Your task to perform on an android device: Open wifi settings Image 0: 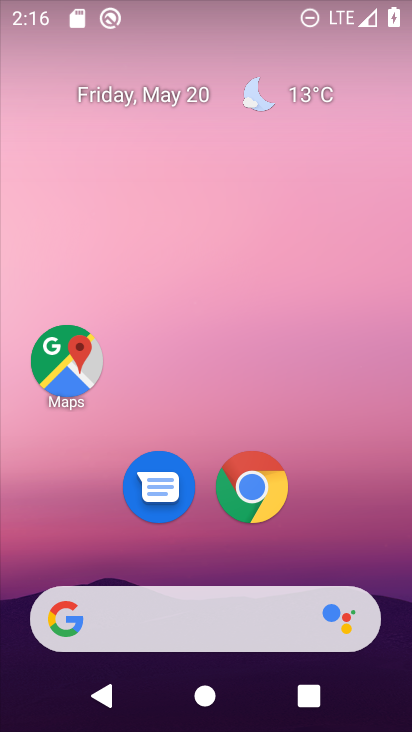
Step 0: drag from (198, 552) to (207, 60)
Your task to perform on an android device: Open wifi settings Image 1: 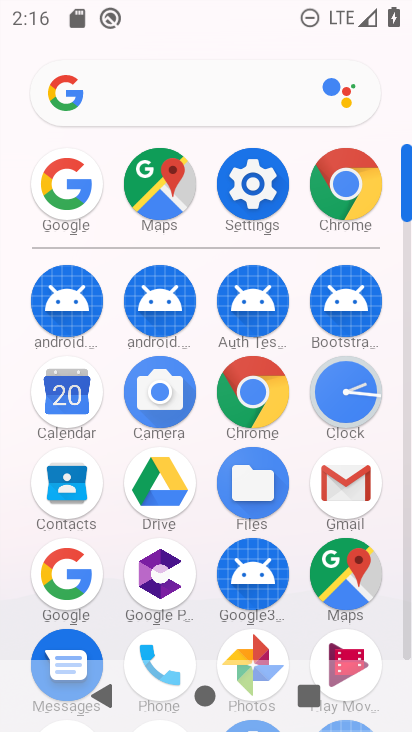
Step 1: click (253, 175)
Your task to perform on an android device: Open wifi settings Image 2: 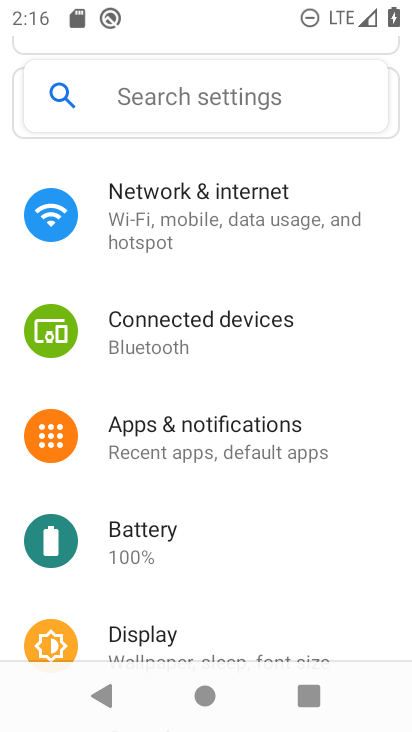
Step 2: click (186, 213)
Your task to perform on an android device: Open wifi settings Image 3: 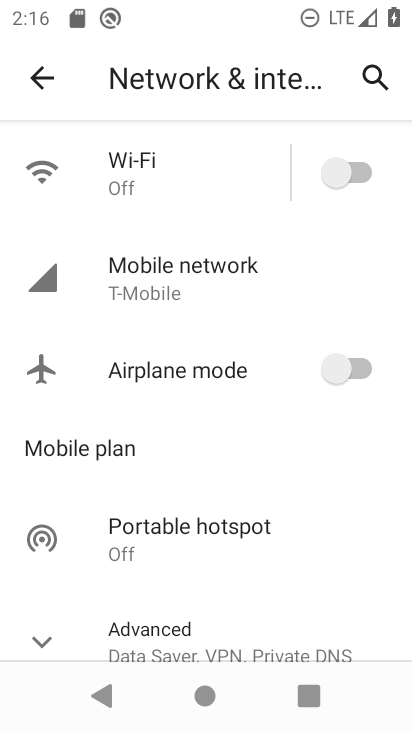
Step 3: click (193, 172)
Your task to perform on an android device: Open wifi settings Image 4: 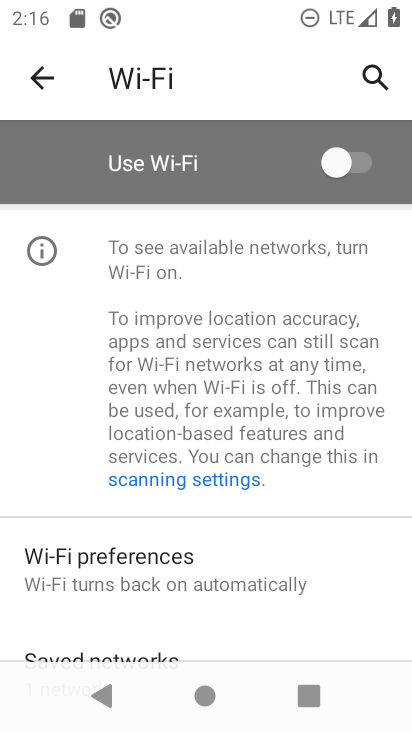
Step 4: click (340, 151)
Your task to perform on an android device: Open wifi settings Image 5: 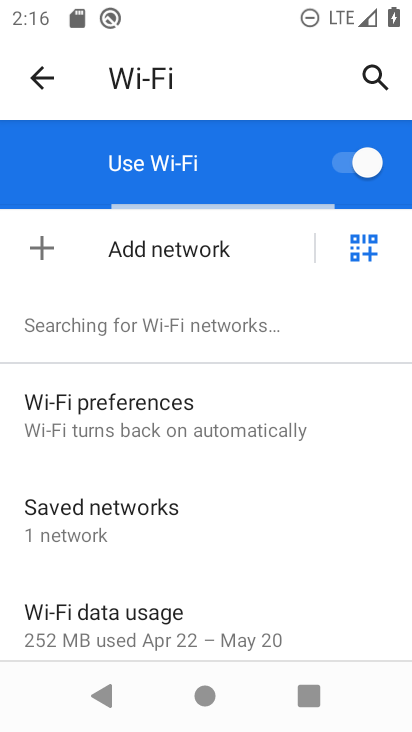
Step 5: task complete